Your task to perform on an android device: toggle notifications settings in the gmail app Image 0: 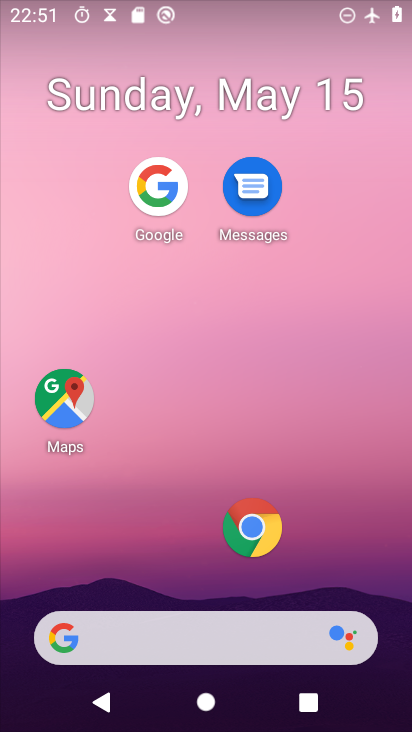
Step 0: press home button
Your task to perform on an android device: toggle notifications settings in the gmail app Image 1: 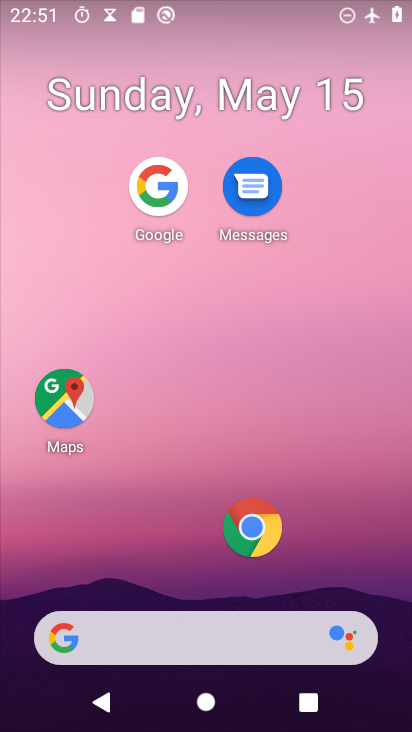
Step 1: drag from (177, 646) to (281, 131)
Your task to perform on an android device: toggle notifications settings in the gmail app Image 2: 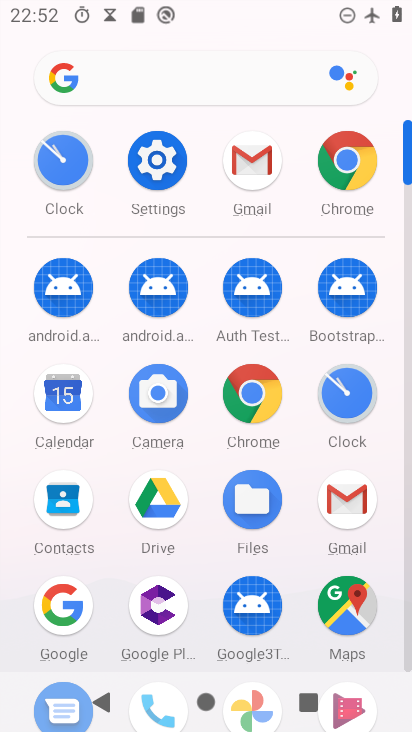
Step 2: click (255, 181)
Your task to perform on an android device: toggle notifications settings in the gmail app Image 3: 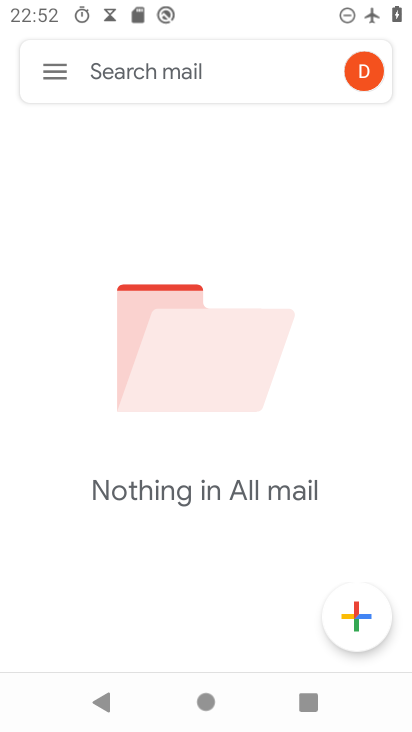
Step 3: click (56, 74)
Your task to perform on an android device: toggle notifications settings in the gmail app Image 4: 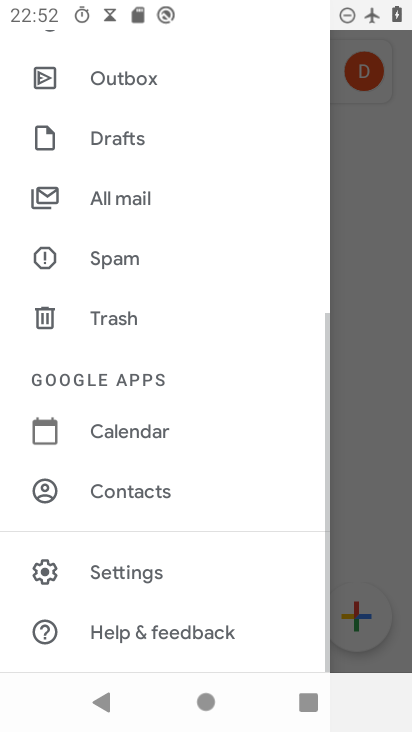
Step 4: click (144, 575)
Your task to perform on an android device: toggle notifications settings in the gmail app Image 5: 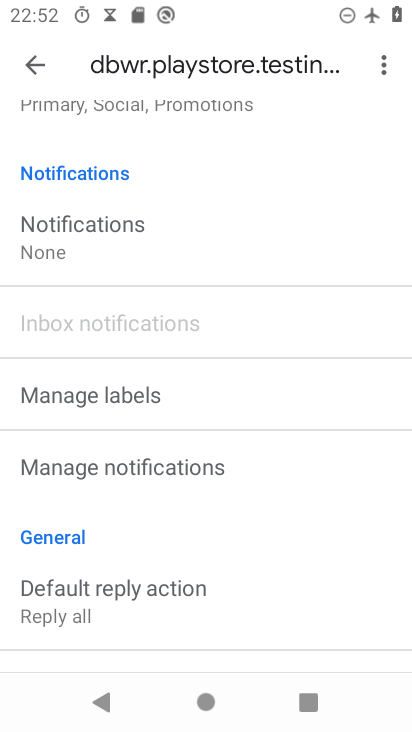
Step 5: click (103, 232)
Your task to perform on an android device: toggle notifications settings in the gmail app Image 6: 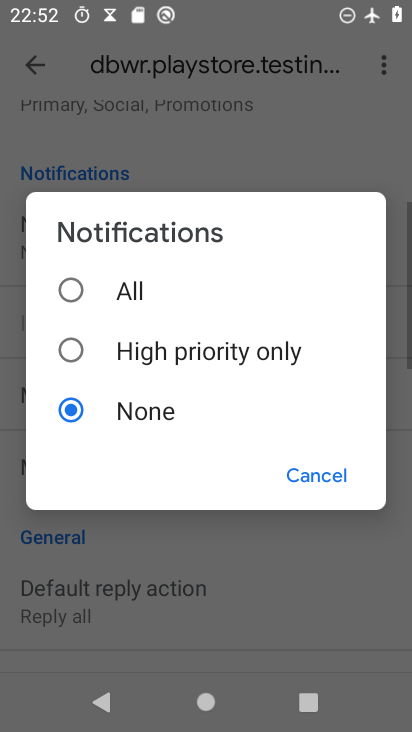
Step 6: click (75, 289)
Your task to perform on an android device: toggle notifications settings in the gmail app Image 7: 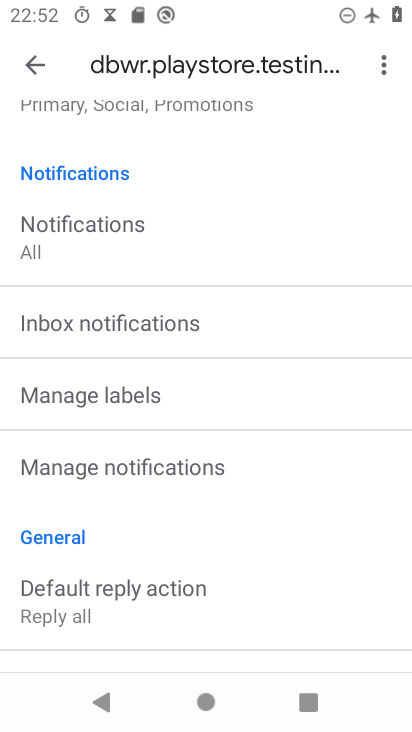
Step 7: task complete